Your task to perform on an android device: Is it going to rain this weekend? Image 0: 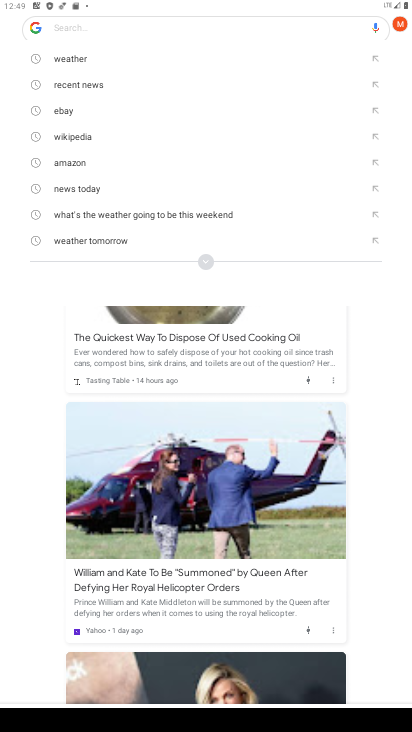
Step 0: press home button
Your task to perform on an android device: Is it going to rain this weekend? Image 1: 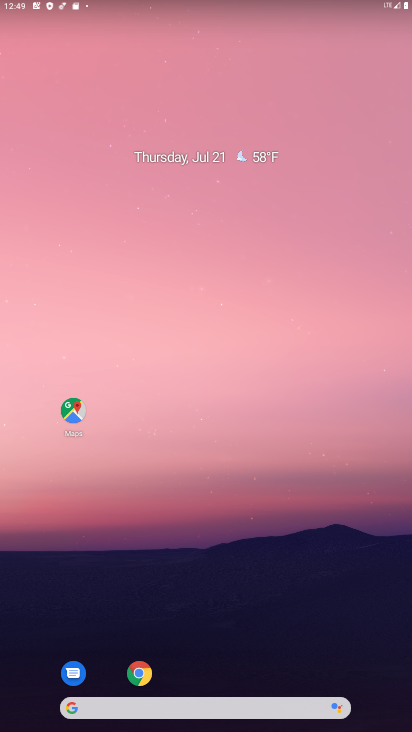
Step 1: click (134, 682)
Your task to perform on an android device: Is it going to rain this weekend? Image 2: 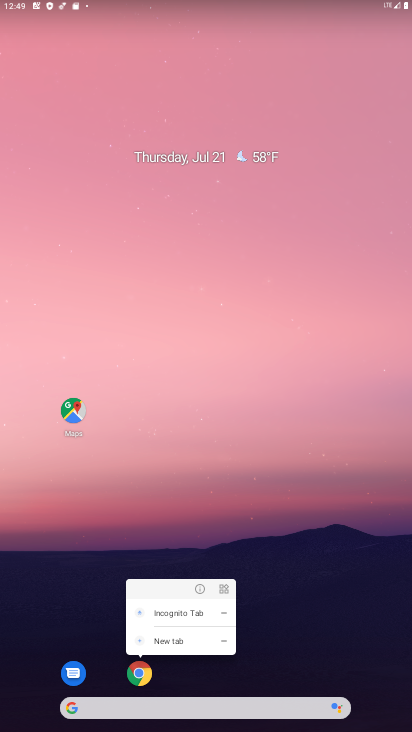
Step 2: click (274, 494)
Your task to perform on an android device: Is it going to rain this weekend? Image 3: 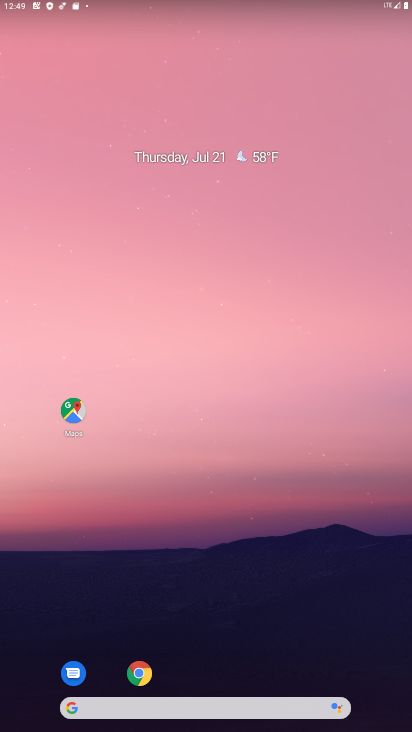
Step 3: drag from (275, 662) to (288, 210)
Your task to perform on an android device: Is it going to rain this weekend? Image 4: 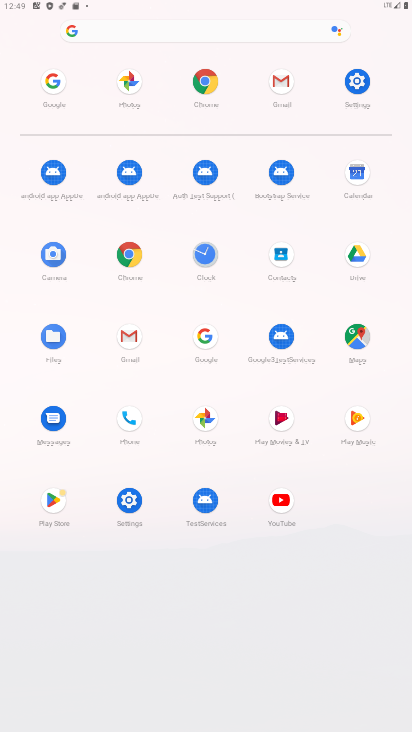
Step 4: click (206, 85)
Your task to perform on an android device: Is it going to rain this weekend? Image 5: 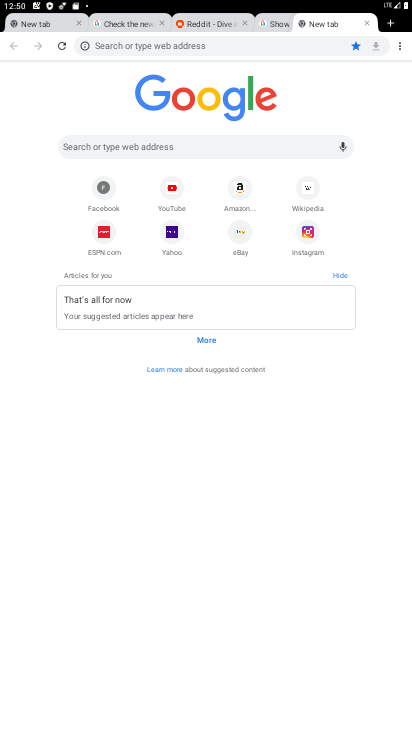
Step 5: click (211, 141)
Your task to perform on an android device: Is it going to rain this weekend? Image 6: 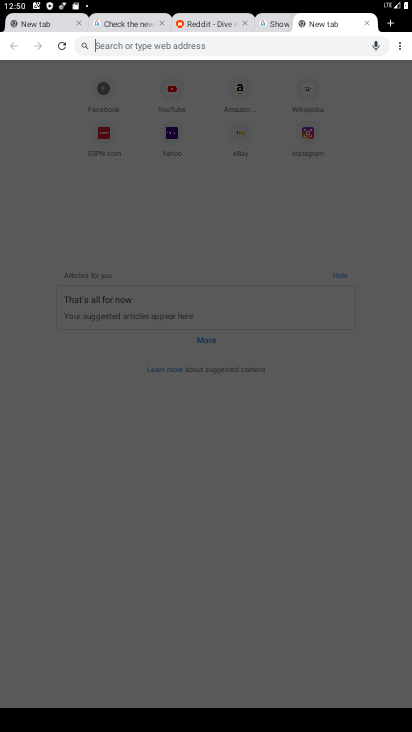
Step 6: type "Is it going to rain this weekend "
Your task to perform on an android device: Is it going to rain this weekend? Image 7: 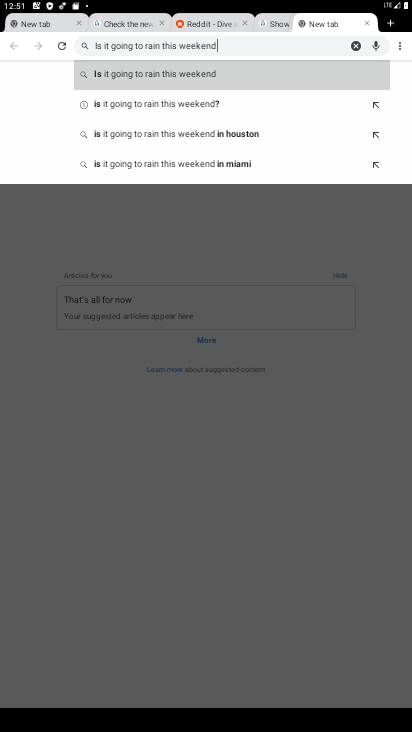
Step 7: click (227, 63)
Your task to perform on an android device: Is it going to rain this weekend? Image 8: 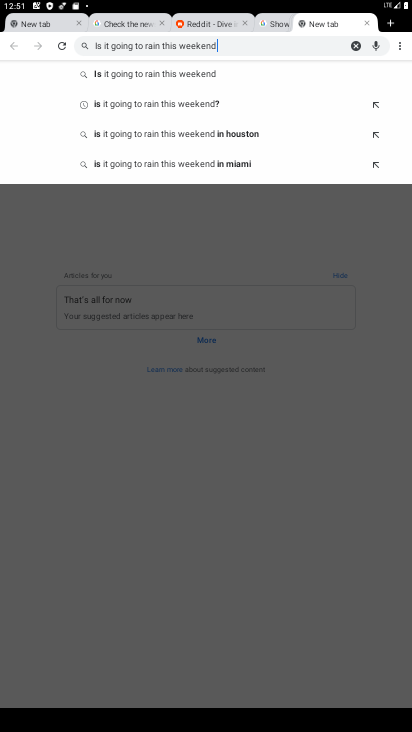
Step 8: click (193, 67)
Your task to perform on an android device: Is it going to rain this weekend? Image 9: 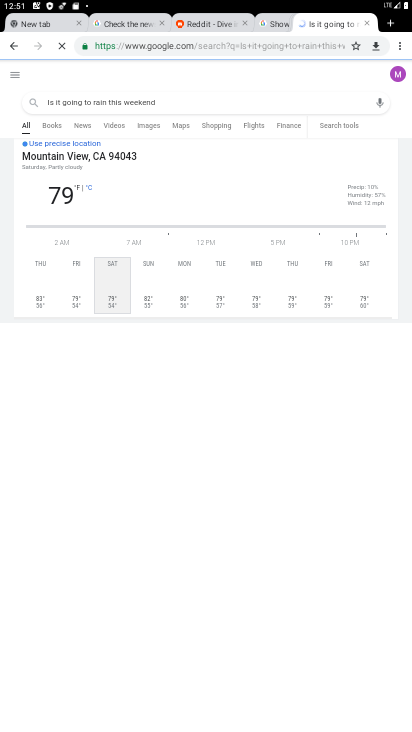
Step 9: task complete